Your task to perform on an android device: Open eBay Image 0: 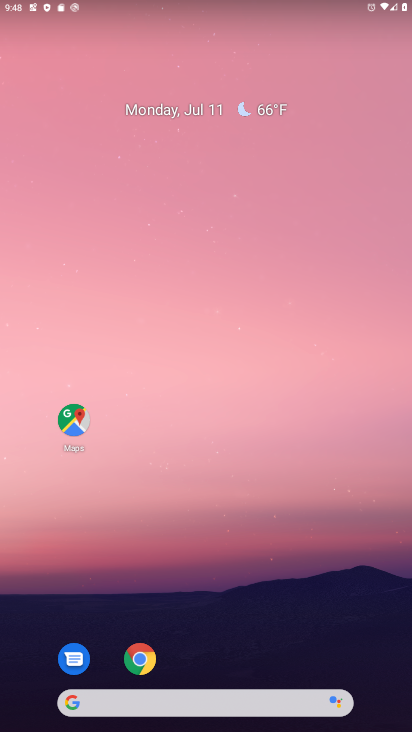
Step 0: drag from (384, 640) to (356, 284)
Your task to perform on an android device: Open eBay Image 1: 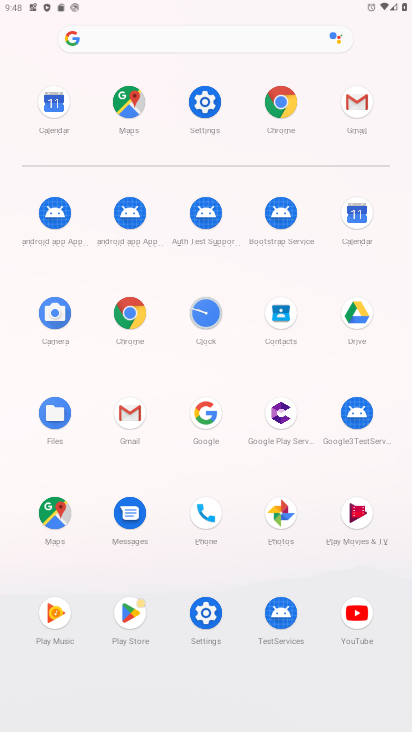
Step 1: click (138, 315)
Your task to perform on an android device: Open eBay Image 2: 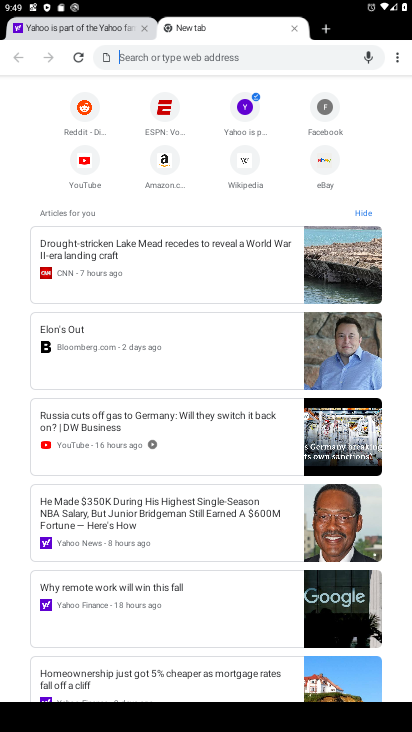
Step 2: click (197, 54)
Your task to perform on an android device: Open eBay Image 3: 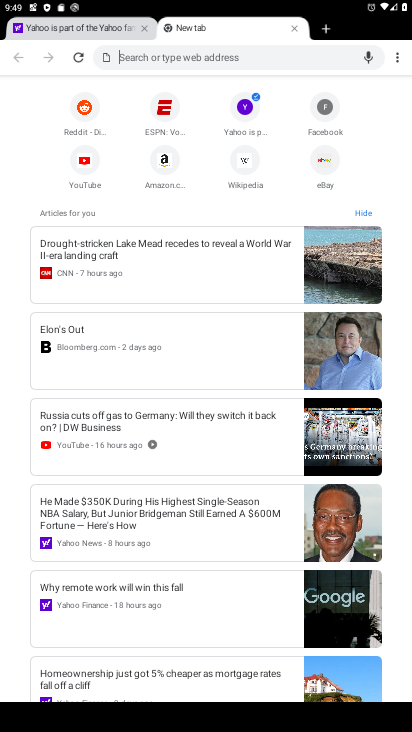
Step 3: type "ebay"
Your task to perform on an android device: Open eBay Image 4: 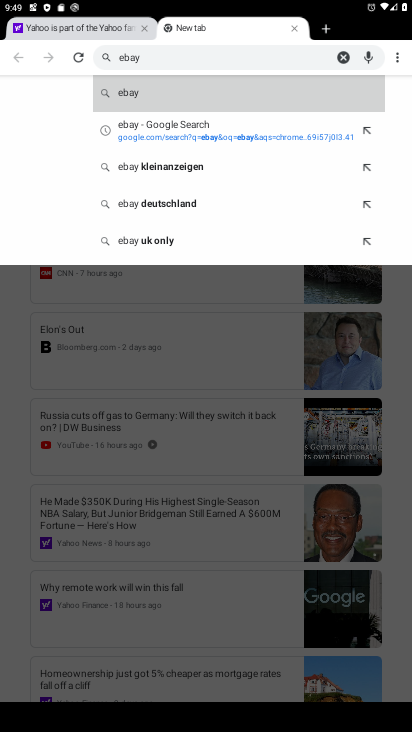
Step 4: click (281, 99)
Your task to perform on an android device: Open eBay Image 5: 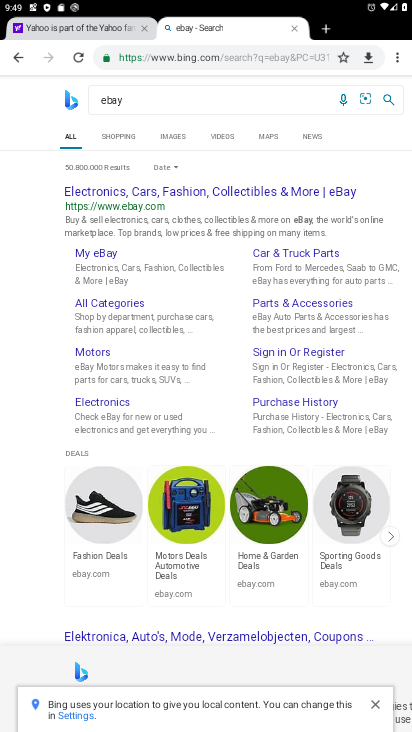
Step 5: task complete